Your task to perform on an android device: change alarm snooze length Image 0: 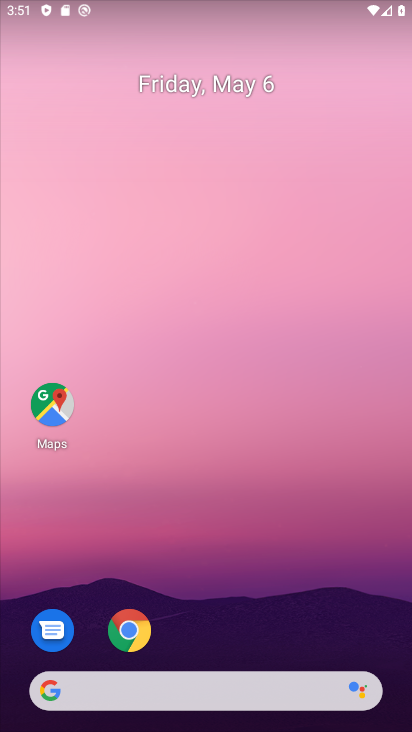
Step 0: drag from (234, 644) to (254, 59)
Your task to perform on an android device: change alarm snooze length Image 1: 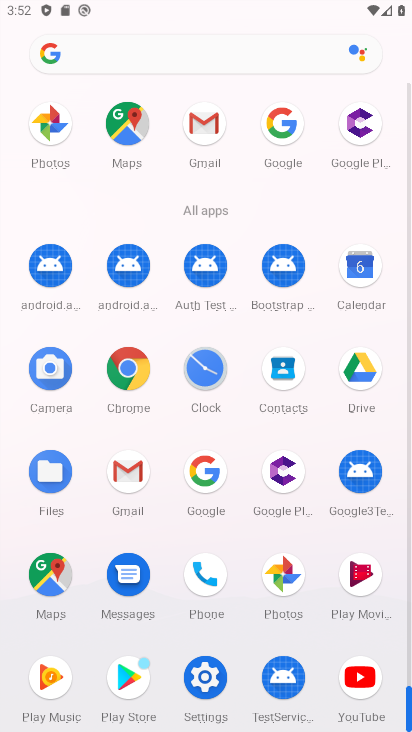
Step 1: click (189, 384)
Your task to perform on an android device: change alarm snooze length Image 2: 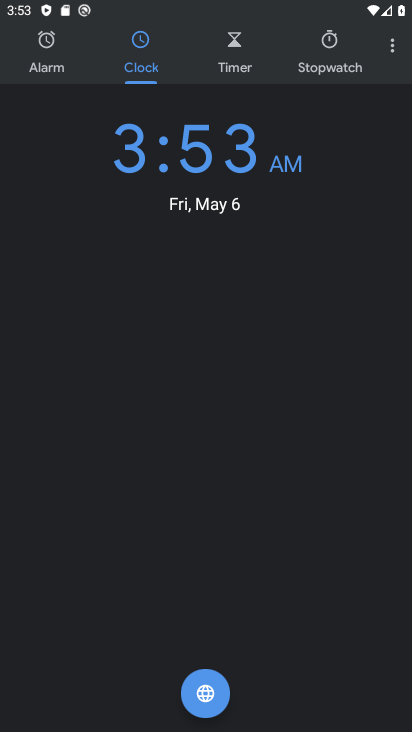
Step 2: click (388, 53)
Your task to perform on an android device: change alarm snooze length Image 3: 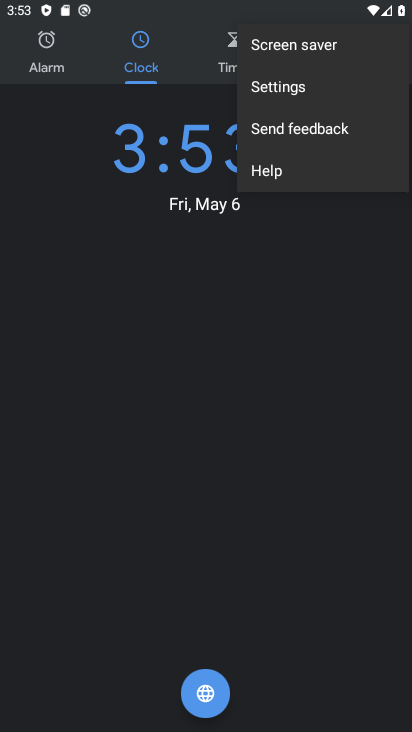
Step 3: click (327, 86)
Your task to perform on an android device: change alarm snooze length Image 4: 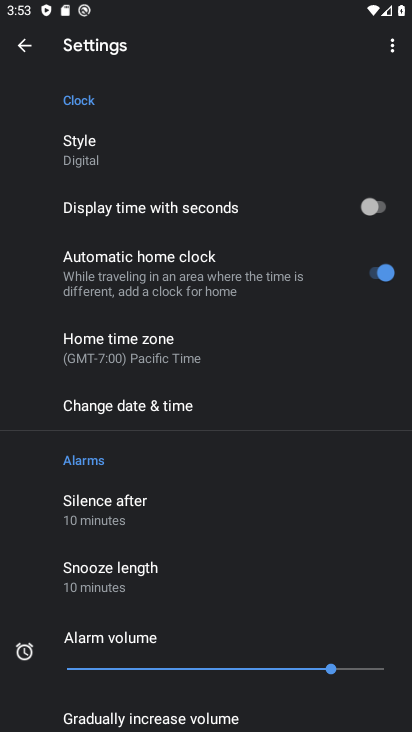
Step 4: drag from (225, 469) to (287, 165)
Your task to perform on an android device: change alarm snooze length Image 5: 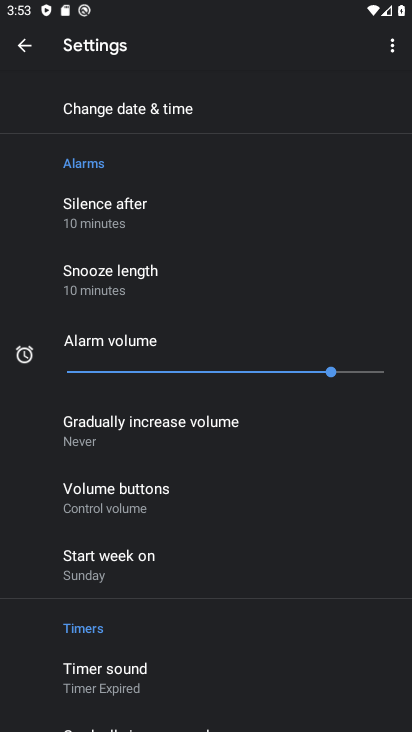
Step 5: click (183, 274)
Your task to perform on an android device: change alarm snooze length Image 6: 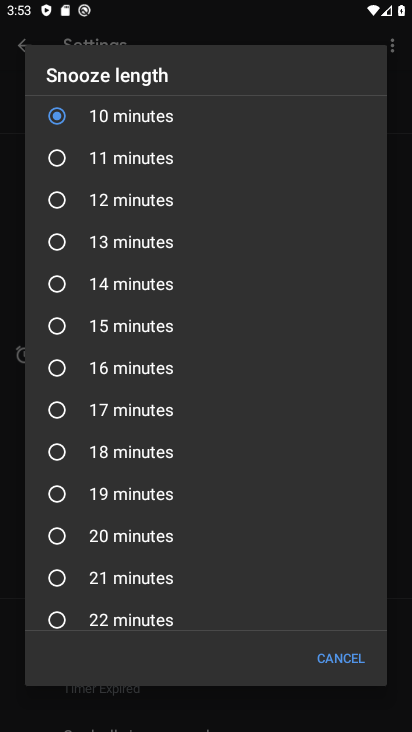
Step 6: click (62, 210)
Your task to perform on an android device: change alarm snooze length Image 7: 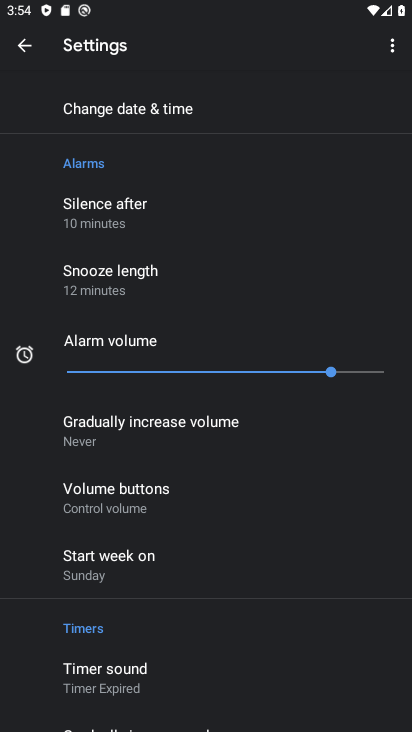
Step 7: task complete